Your task to perform on an android device: clear all cookies in the chrome app Image 0: 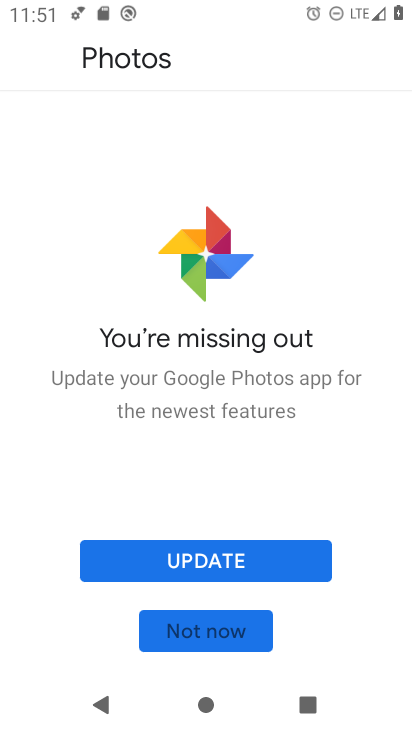
Step 0: press back button
Your task to perform on an android device: clear all cookies in the chrome app Image 1: 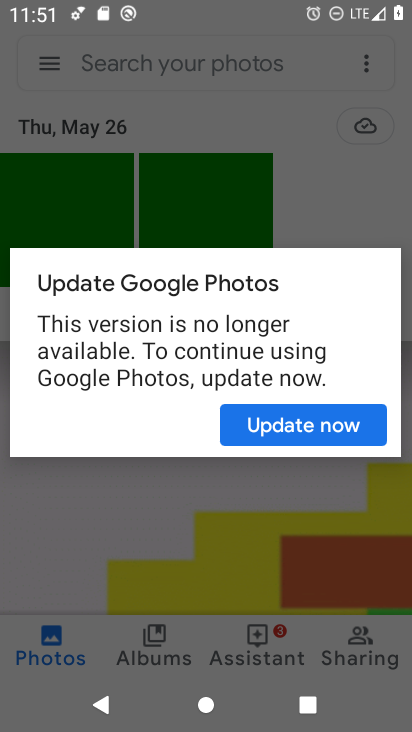
Step 1: press home button
Your task to perform on an android device: clear all cookies in the chrome app Image 2: 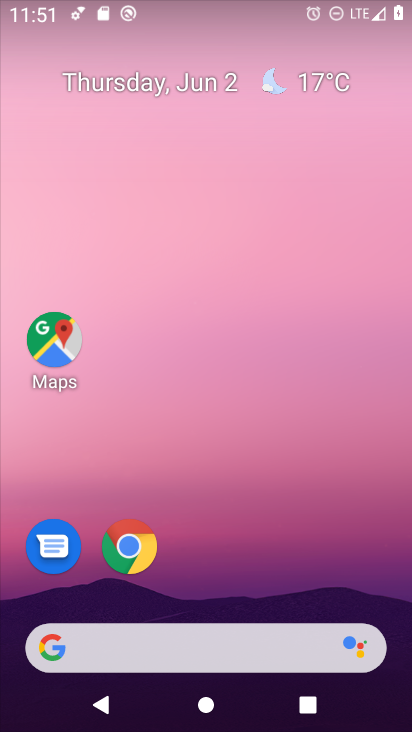
Step 2: click (132, 539)
Your task to perform on an android device: clear all cookies in the chrome app Image 3: 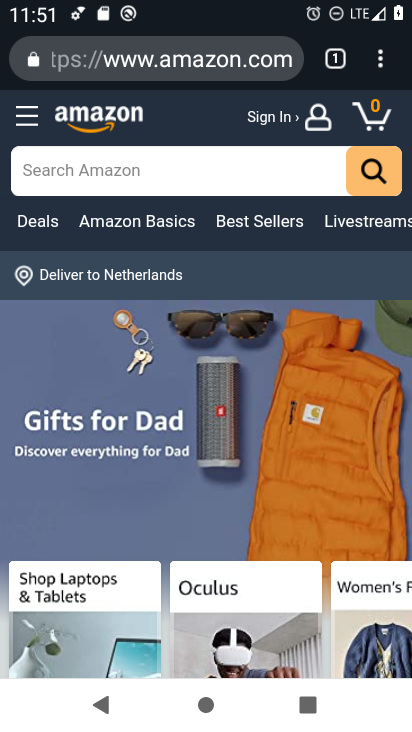
Step 3: drag from (381, 53) to (169, 564)
Your task to perform on an android device: clear all cookies in the chrome app Image 4: 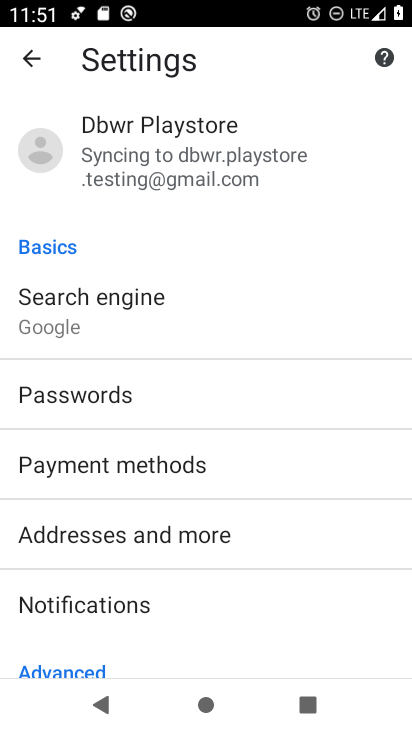
Step 4: drag from (240, 576) to (263, 179)
Your task to perform on an android device: clear all cookies in the chrome app Image 5: 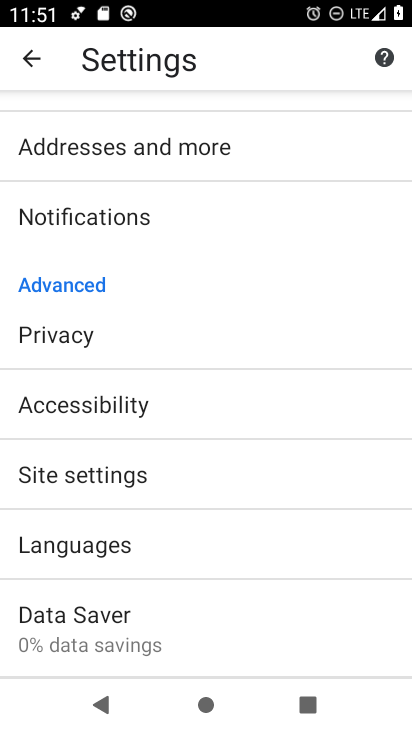
Step 5: drag from (208, 517) to (233, 168)
Your task to perform on an android device: clear all cookies in the chrome app Image 6: 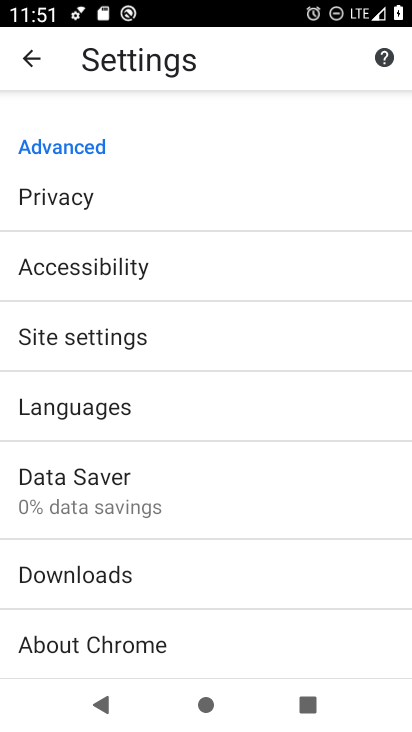
Step 6: drag from (185, 593) to (232, 230)
Your task to perform on an android device: clear all cookies in the chrome app Image 7: 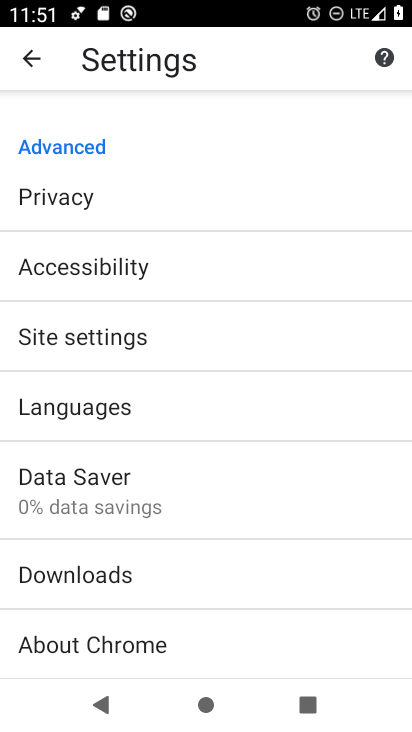
Step 7: click (96, 200)
Your task to perform on an android device: clear all cookies in the chrome app Image 8: 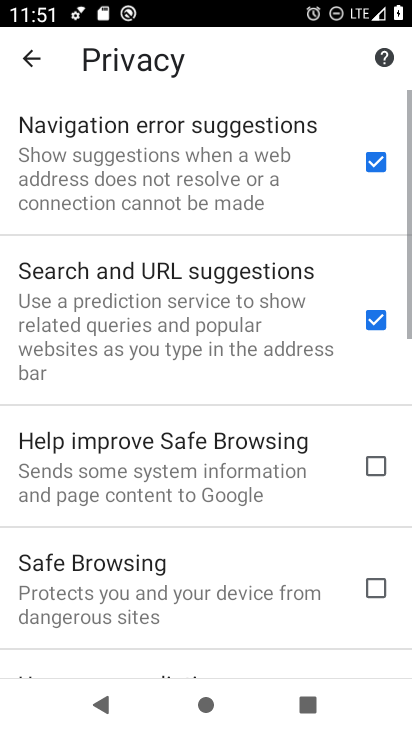
Step 8: drag from (173, 566) to (210, 67)
Your task to perform on an android device: clear all cookies in the chrome app Image 9: 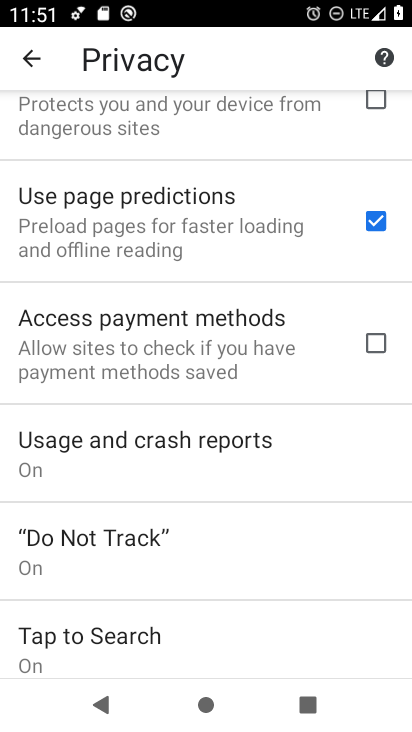
Step 9: drag from (146, 543) to (209, 110)
Your task to perform on an android device: clear all cookies in the chrome app Image 10: 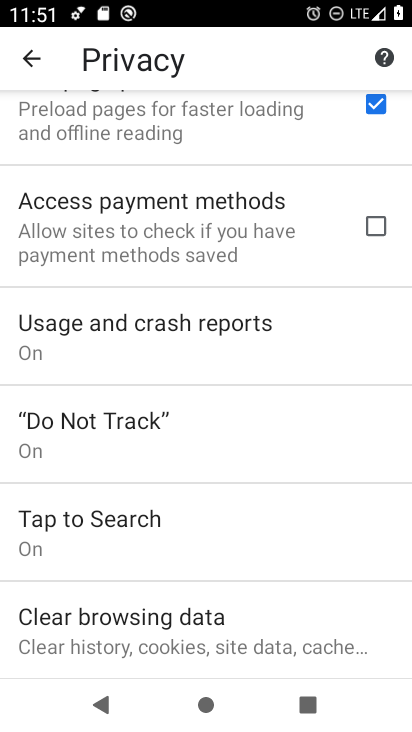
Step 10: drag from (162, 625) to (207, 153)
Your task to perform on an android device: clear all cookies in the chrome app Image 11: 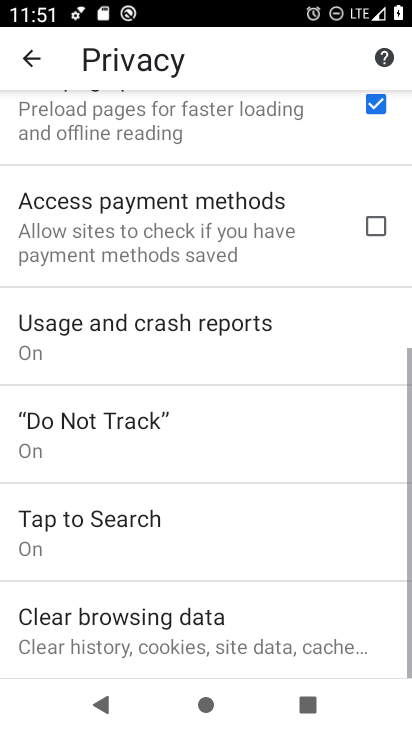
Step 11: click (133, 638)
Your task to perform on an android device: clear all cookies in the chrome app Image 12: 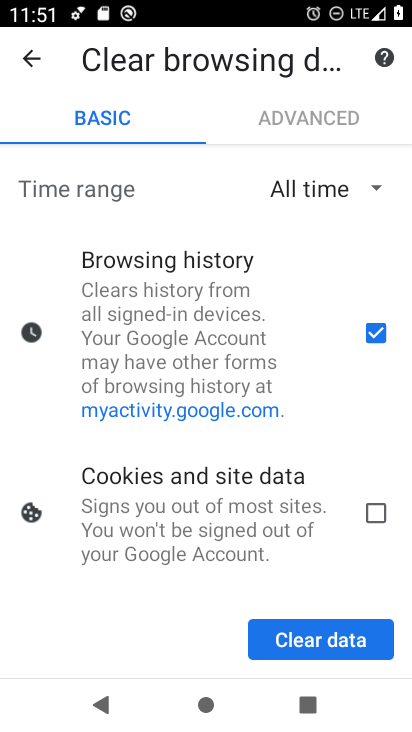
Step 12: drag from (169, 435) to (181, 195)
Your task to perform on an android device: clear all cookies in the chrome app Image 13: 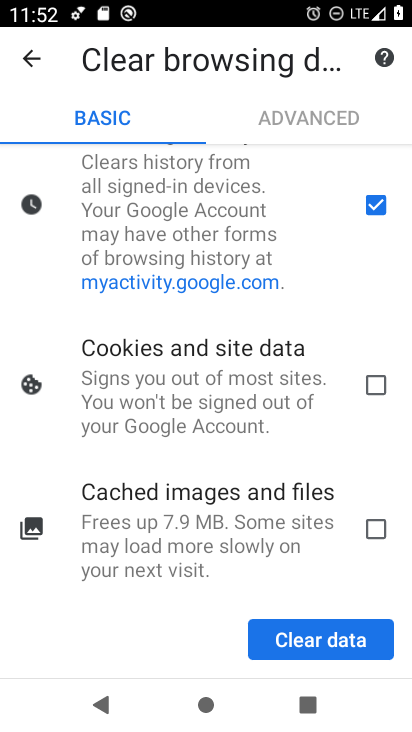
Step 13: click (376, 390)
Your task to perform on an android device: clear all cookies in the chrome app Image 14: 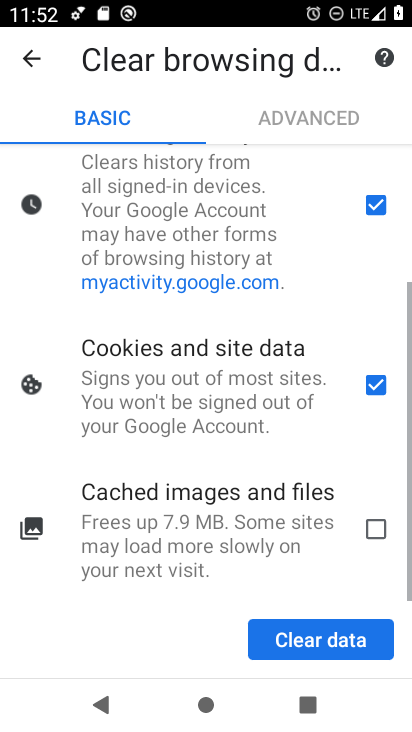
Step 14: click (369, 208)
Your task to perform on an android device: clear all cookies in the chrome app Image 15: 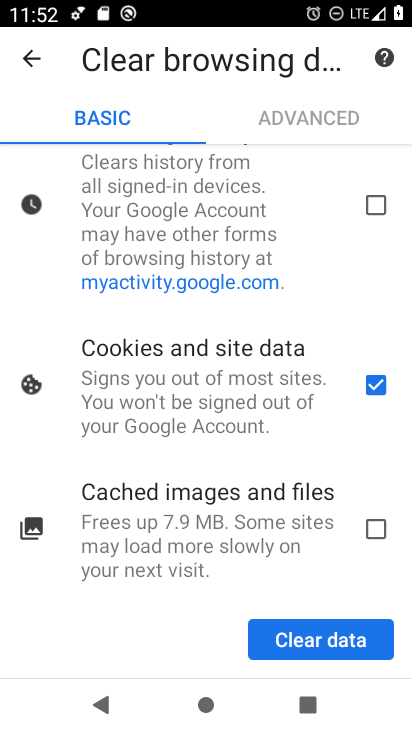
Step 15: click (305, 630)
Your task to perform on an android device: clear all cookies in the chrome app Image 16: 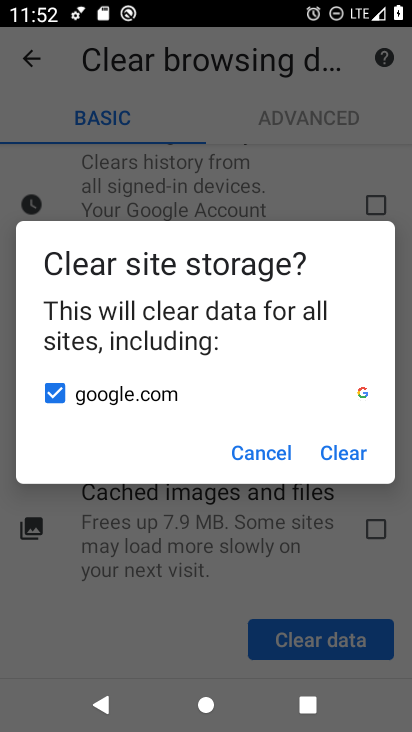
Step 16: click (325, 443)
Your task to perform on an android device: clear all cookies in the chrome app Image 17: 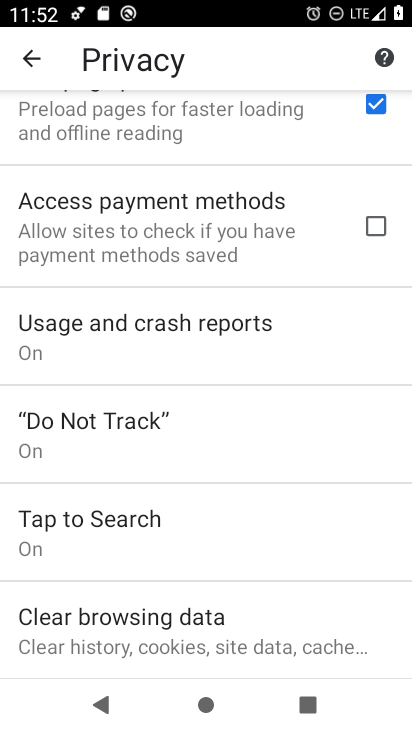
Step 17: task complete